Your task to perform on an android device: open sync settings in chrome Image 0: 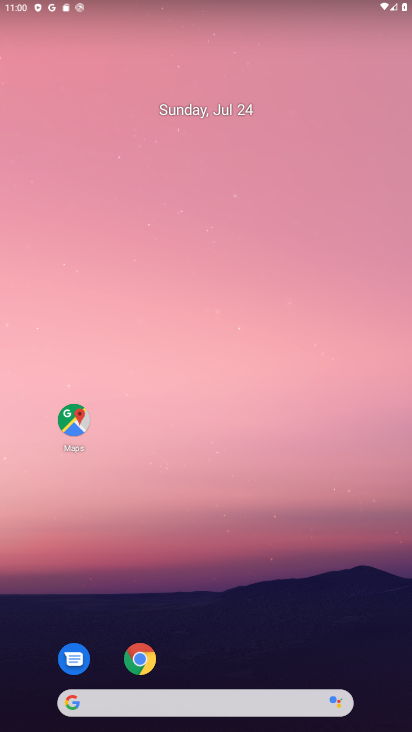
Step 0: drag from (336, 276) to (186, 238)
Your task to perform on an android device: open sync settings in chrome Image 1: 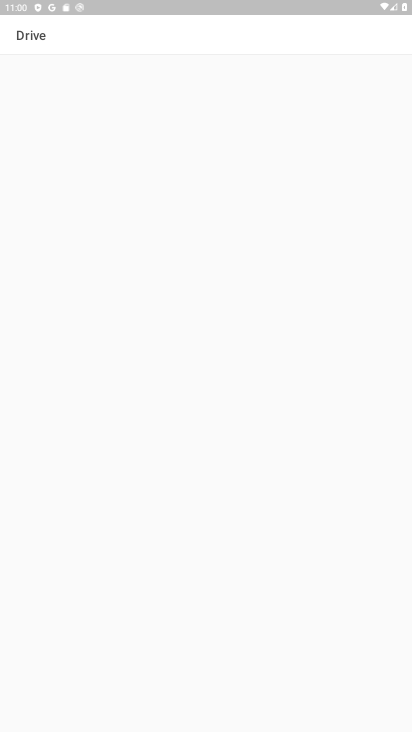
Step 1: press home button
Your task to perform on an android device: open sync settings in chrome Image 2: 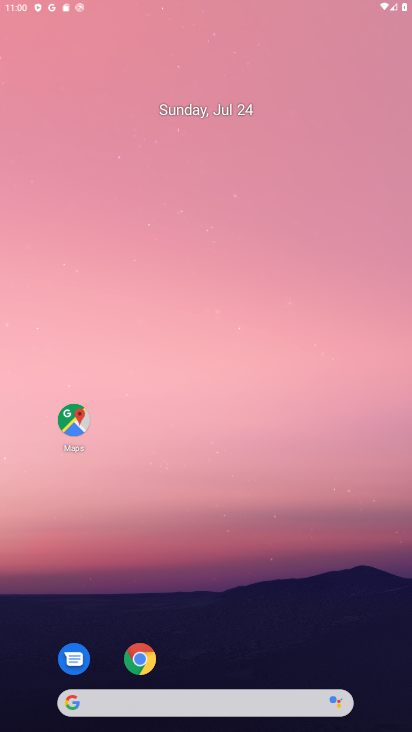
Step 2: drag from (186, 669) to (209, 348)
Your task to perform on an android device: open sync settings in chrome Image 3: 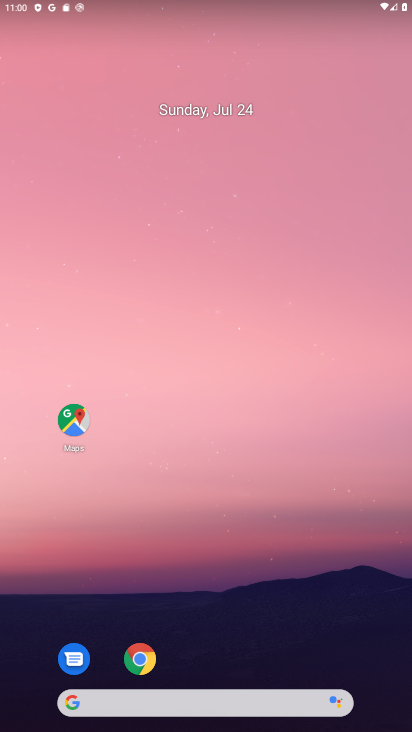
Step 3: drag from (228, 657) to (251, 313)
Your task to perform on an android device: open sync settings in chrome Image 4: 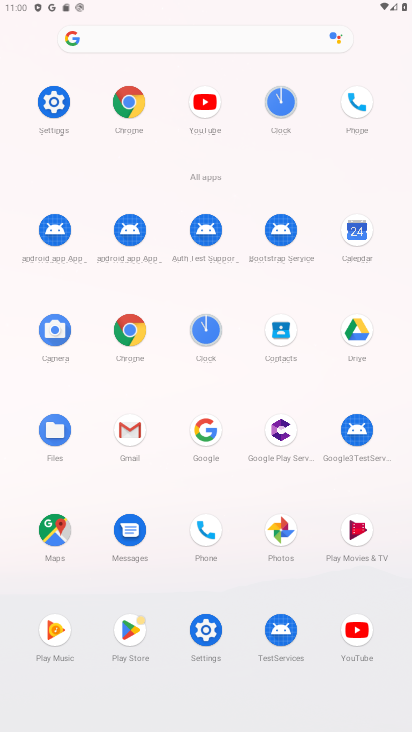
Step 4: click (128, 329)
Your task to perform on an android device: open sync settings in chrome Image 5: 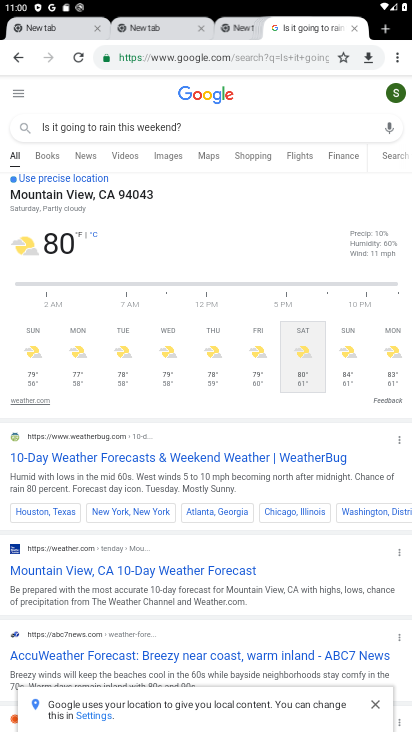
Step 5: click (405, 52)
Your task to perform on an android device: open sync settings in chrome Image 6: 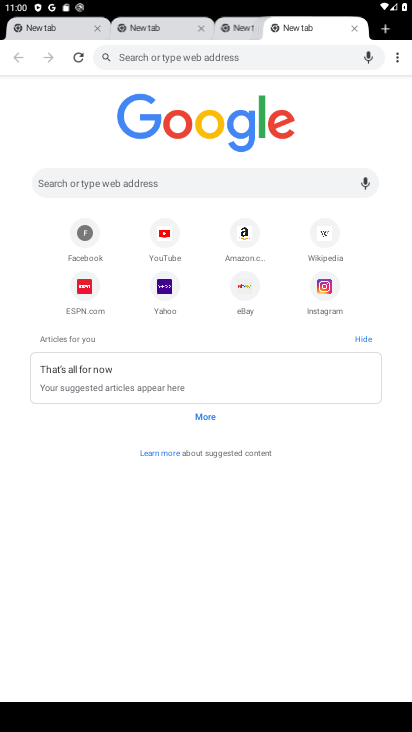
Step 6: click (406, 56)
Your task to perform on an android device: open sync settings in chrome Image 7: 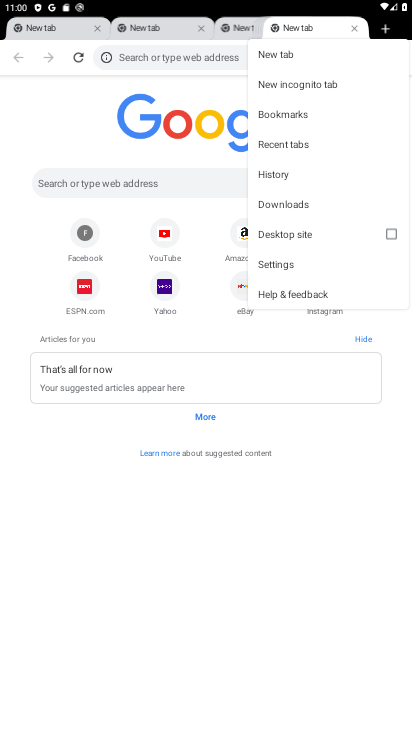
Step 7: click (286, 253)
Your task to perform on an android device: open sync settings in chrome Image 8: 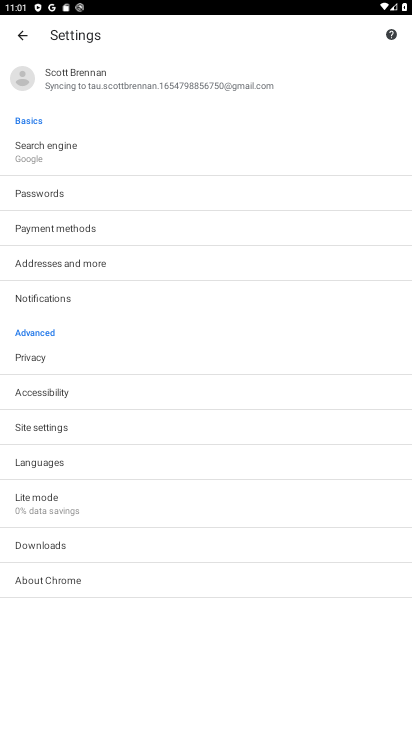
Step 8: click (72, 66)
Your task to perform on an android device: open sync settings in chrome Image 9: 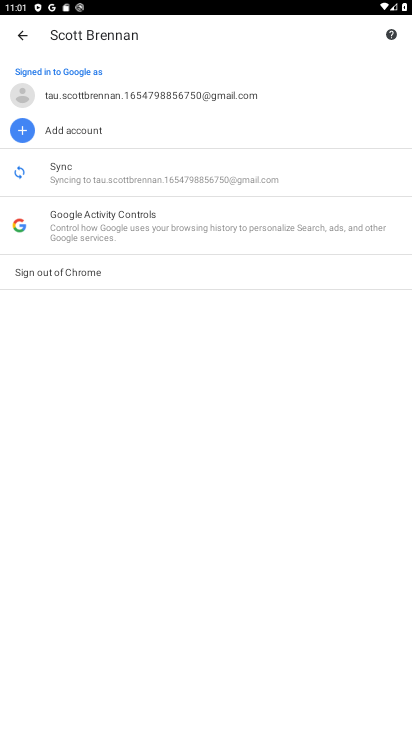
Step 9: click (66, 175)
Your task to perform on an android device: open sync settings in chrome Image 10: 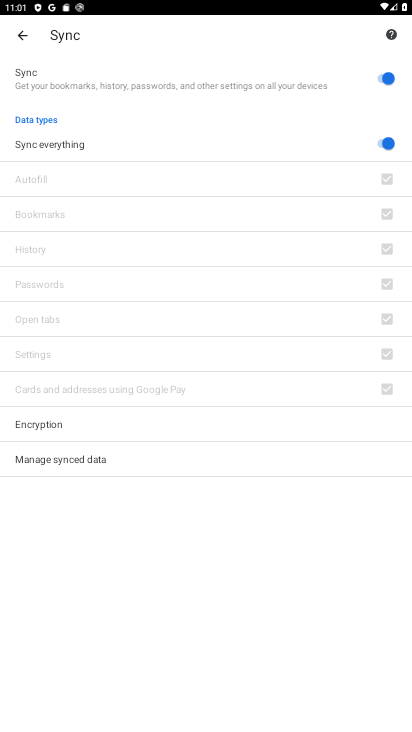
Step 10: task complete